Your task to perform on an android device: Go to settings Image 0: 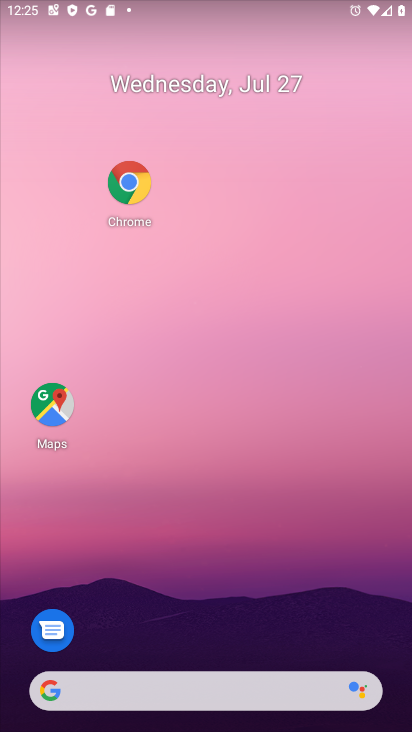
Step 0: drag from (263, 723) to (295, 247)
Your task to perform on an android device: Go to settings Image 1: 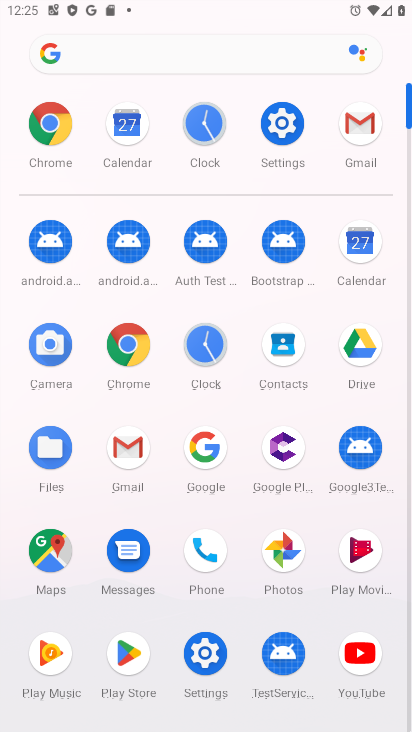
Step 1: click (293, 133)
Your task to perform on an android device: Go to settings Image 2: 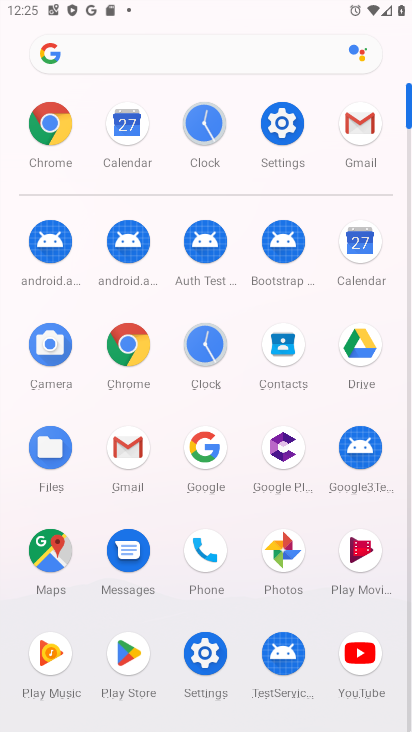
Step 2: click (293, 133)
Your task to perform on an android device: Go to settings Image 3: 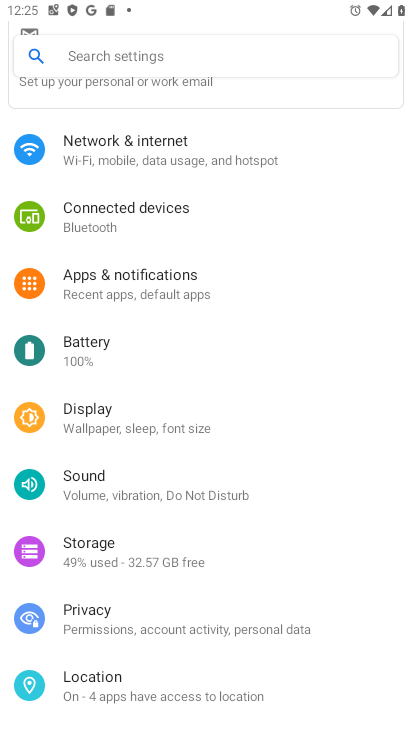
Step 3: task complete